Your task to perform on an android device: turn on sleep mode Image 0: 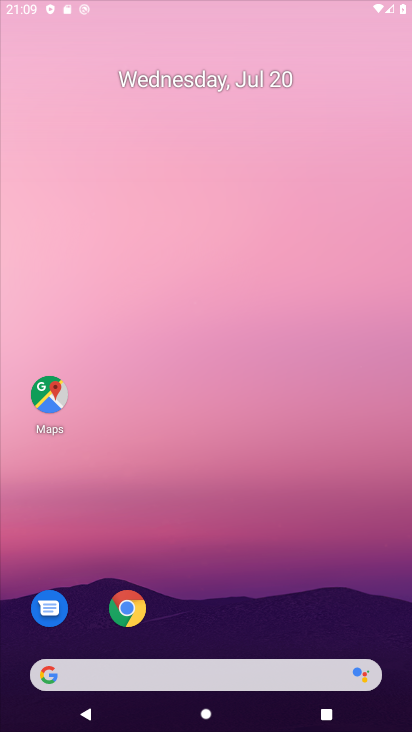
Step 0: drag from (328, 315) to (341, 195)
Your task to perform on an android device: turn on sleep mode Image 1: 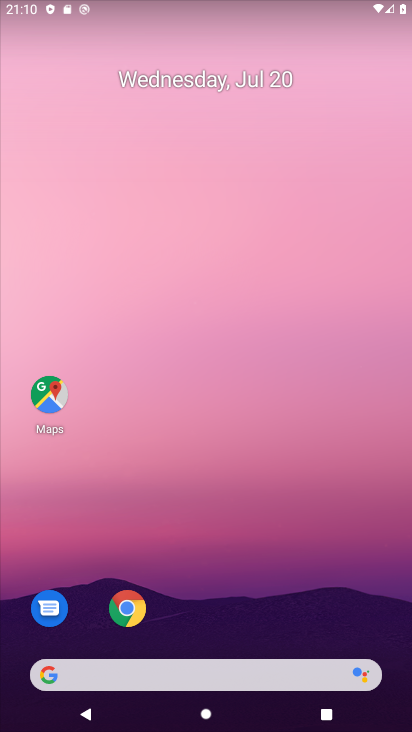
Step 1: drag from (232, 494) to (149, 182)
Your task to perform on an android device: turn on sleep mode Image 2: 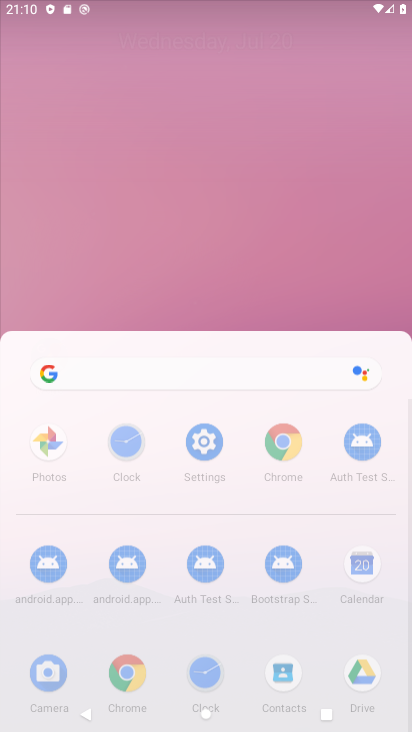
Step 2: drag from (301, 605) to (361, 74)
Your task to perform on an android device: turn on sleep mode Image 3: 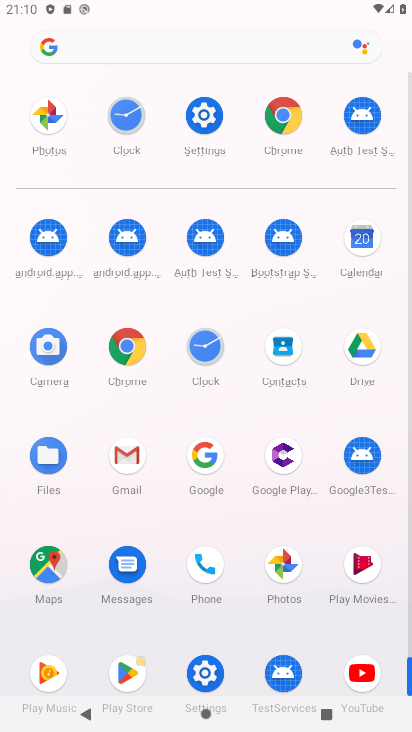
Step 3: drag from (303, 392) to (303, 122)
Your task to perform on an android device: turn on sleep mode Image 4: 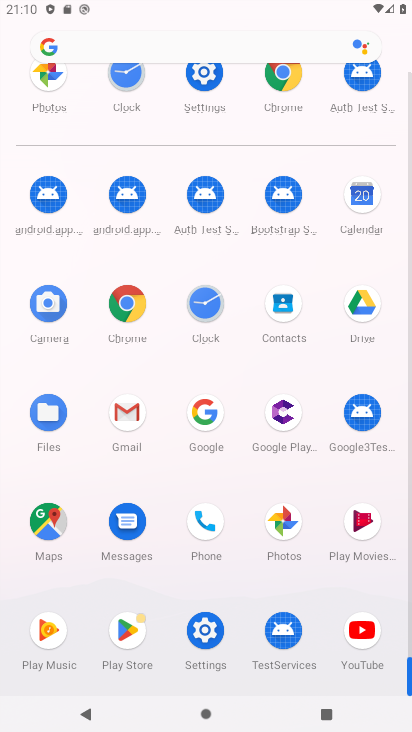
Step 4: click (206, 87)
Your task to perform on an android device: turn on sleep mode Image 5: 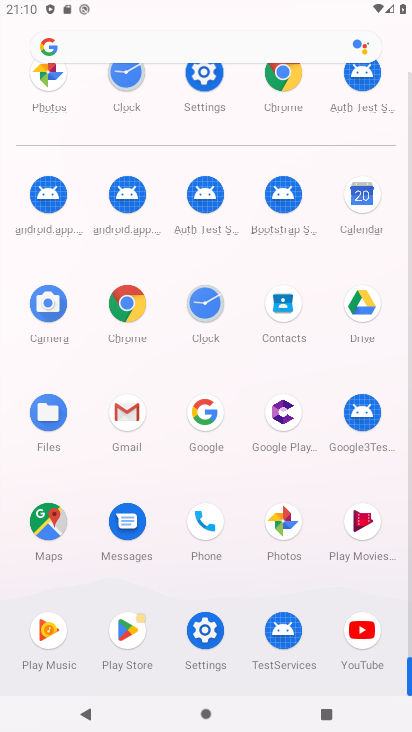
Step 5: click (206, 87)
Your task to perform on an android device: turn on sleep mode Image 6: 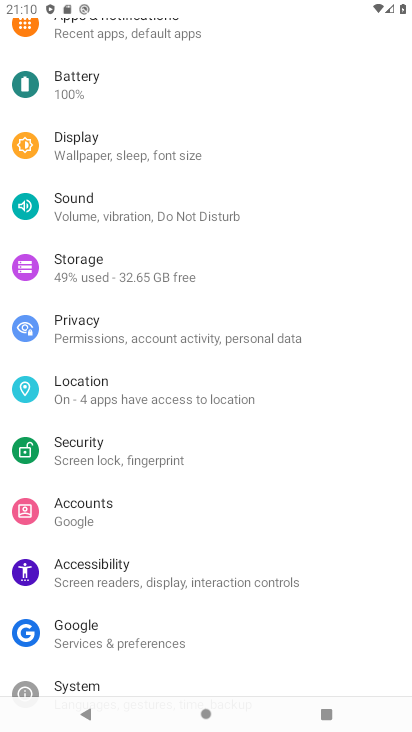
Step 6: click (118, 151)
Your task to perform on an android device: turn on sleep mode Image 7: 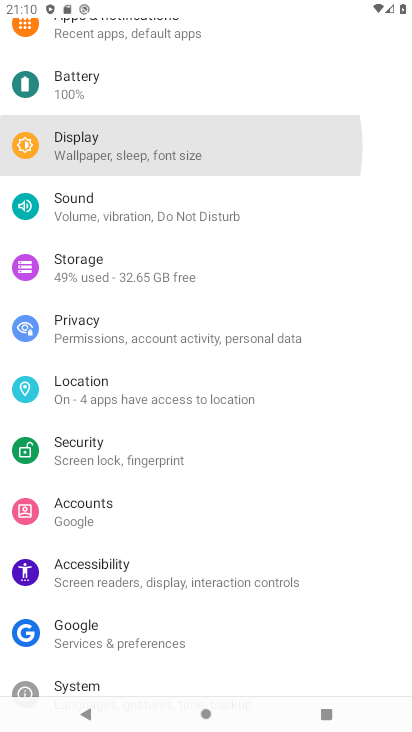
Step 7: click (118, 151)
Your task to perform on an android device: turn on sleep mode Image 8: 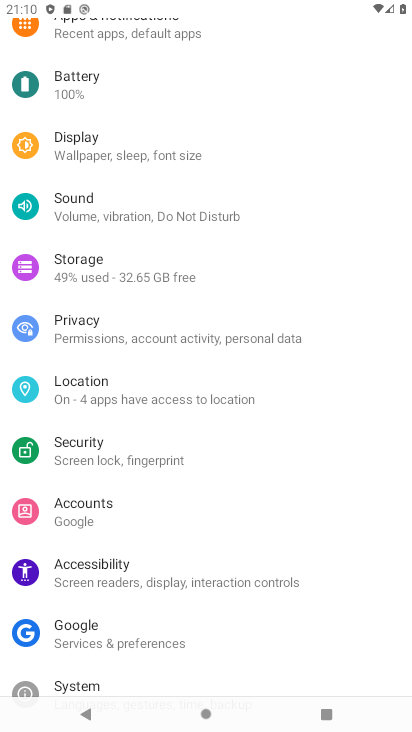
Step 8: click (124, 157)
Your task to perform on an android device: turn on sleep mode Image 9: 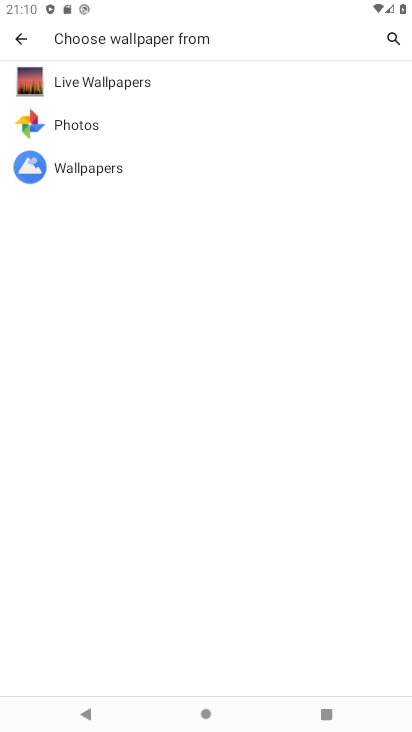
Step 9: click (14, 37)
Your task to perform on an android device: turn on sleep mode Image 10: 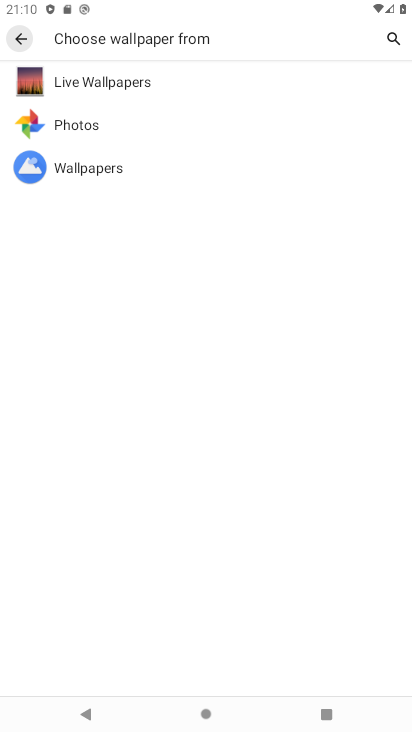
Step 10: click (17, 37)
Your task to perform on an android device: turn on sleep mode Image 11: 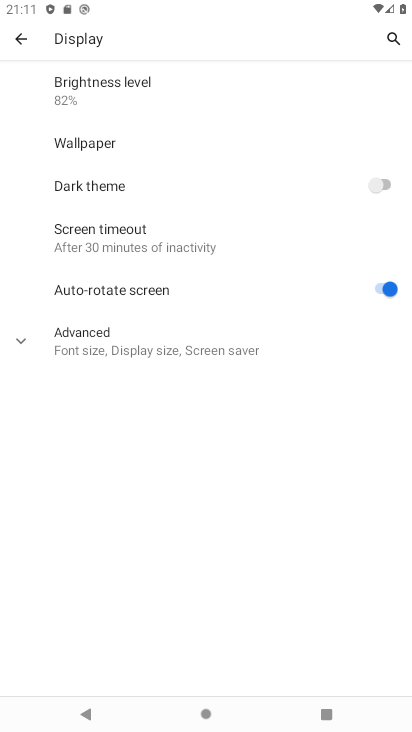
Step 11: click (126, 238)
Your task to perform on an android device: turn on sleep mode Image 12: 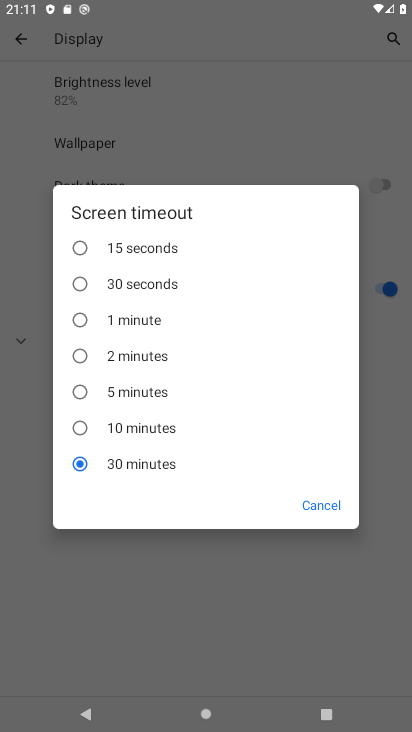
Step 12: task complete